Your task to perform on an android device: Go to eBay Image 0: 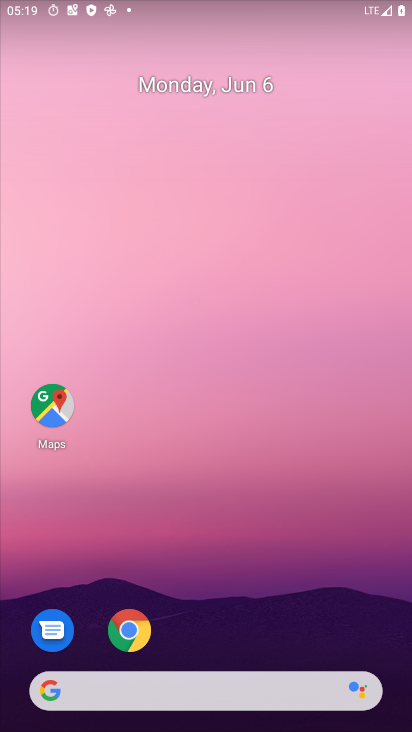
Step 0: drag from (233, 652) to (318, 45)
Your task to perform on an android device: Go to eBay Image 1: 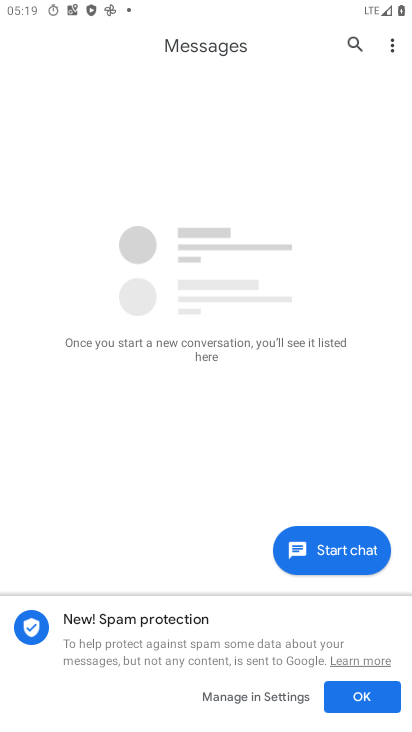
Step 1: press home button
Your task to perform on an android device: Go to eBay Image 2: 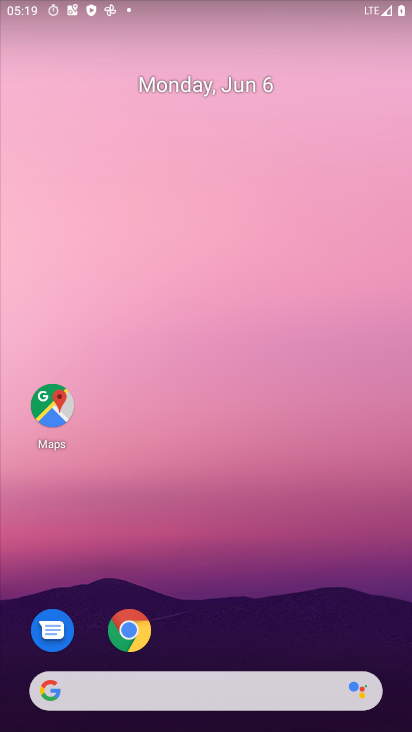
Step 2: drag from (219, 614) to (285, 26)
Your task to perform on an android device: Go to eBay Image 3: 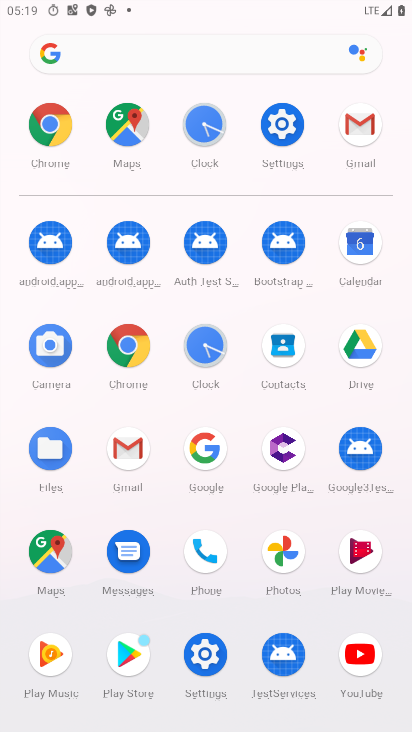
Step 3: click (123, 355)
Your task to perform on an android device: Go to eBay Image 4: 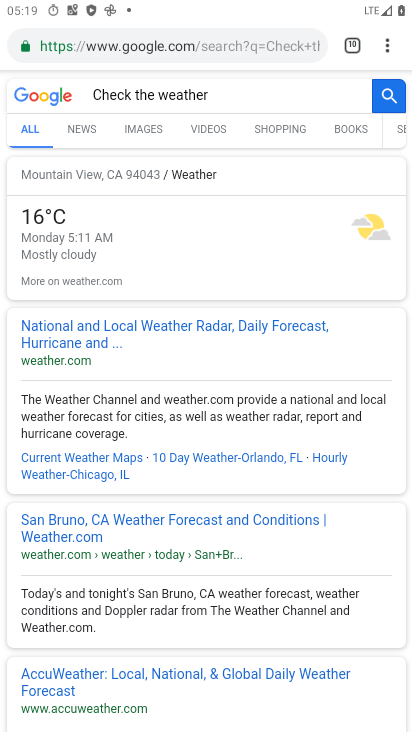
Step 4: click (197, 41)
Your task to perform on an android device: Go to eBay Image 5: 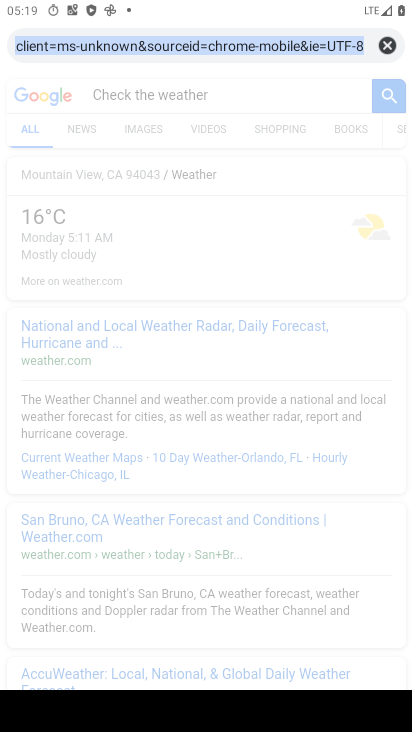
Step 5: click (381, 50)
Your task to perform on an android device: Go to eBay Image 6: 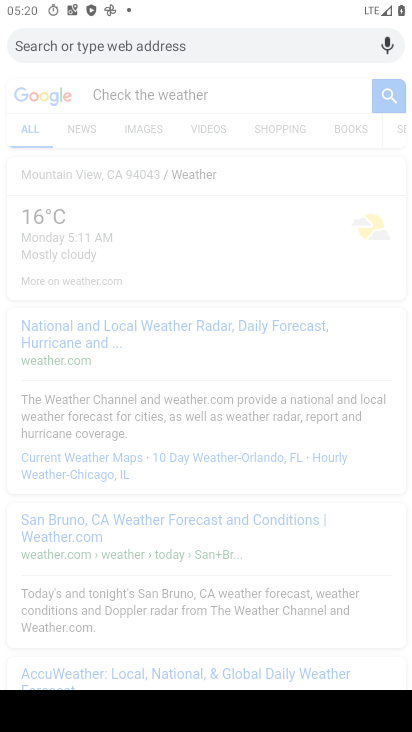
Step 6: type " eBay"
Your task to perform on an android device: Go to eBay Image 7: 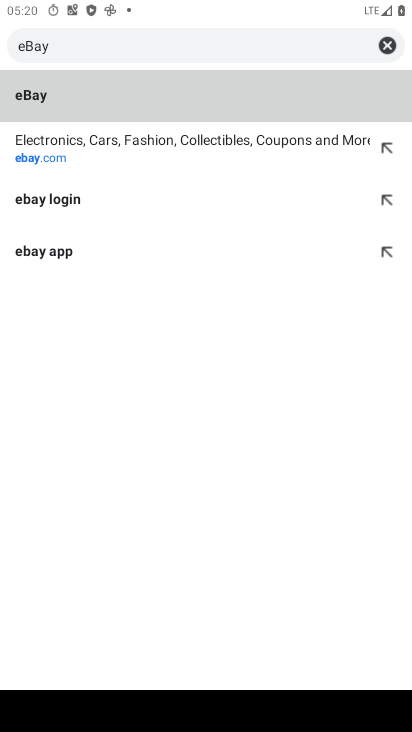
Step 7: click (45, 152)
Your task to perform on an android device: Go to eBay Image 8: 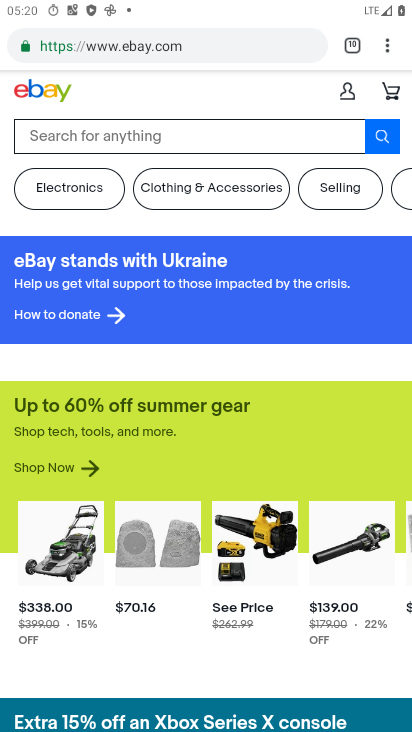
Step 8: task complete